Your task to perform on an android device: Search for Mexican restaurants on Maps Image 0: 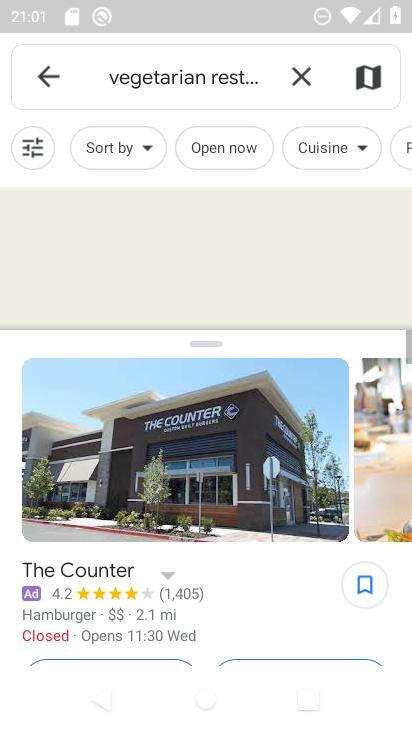
Step 0: press home button
Your task to perform on an android device: Search for Mexican restaurants on Maps Image 1: 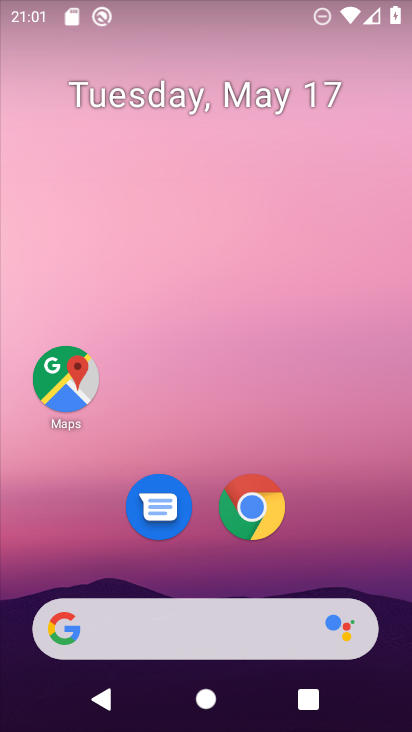
Step 1: click (67, 350)
Your task to perform on an android device: Search for Mexican restaurants on Maps Image 2: 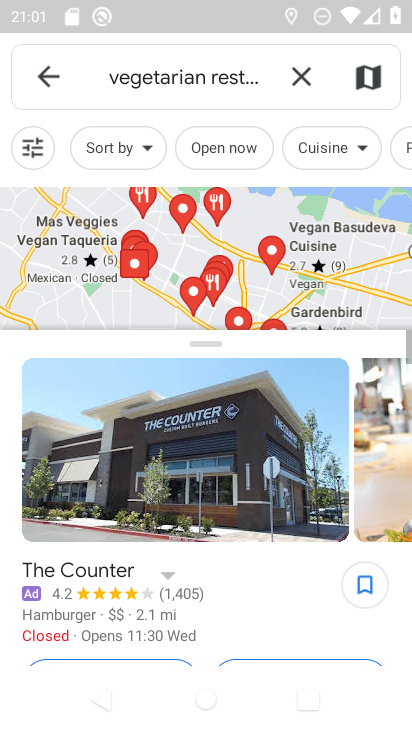
Step 2: click (298, 69)
Your task to perform on an android device: Search for Mexican restaurants on Maps Image 3: 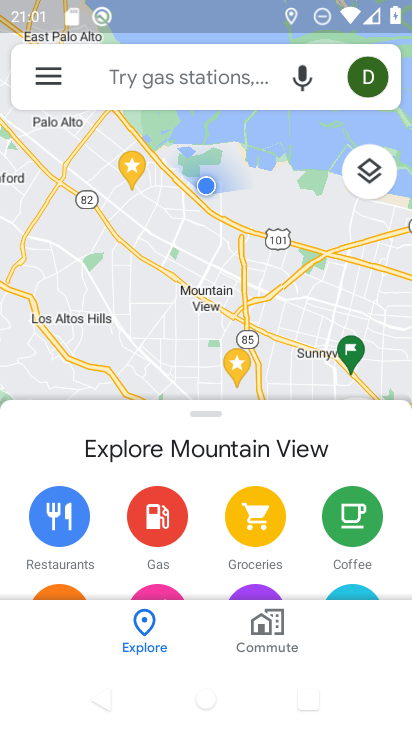
Step 3: click (130, 83)
Your task to perform on an android device: Search for Mexican restaurants on Maps Image 4: 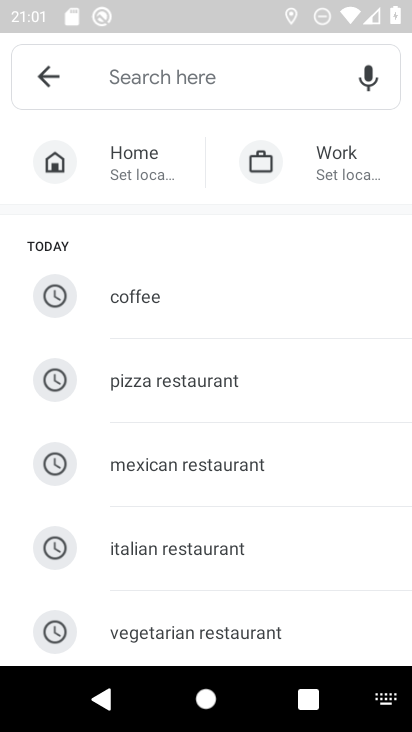
Step 4: type "mexican restaurant"
Your task to perform on an android device: Search for Mexican restaurants on Maps Image 5: 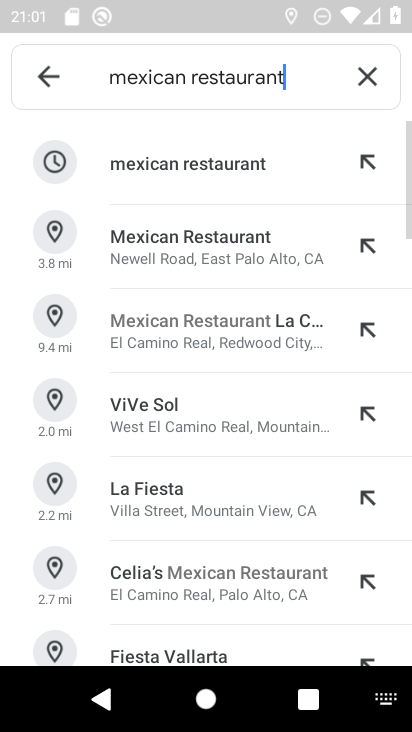
Step 5: click (196, 161)
Your task to perform on an android device: Search for Mexican restaurants on Maps Image 6: 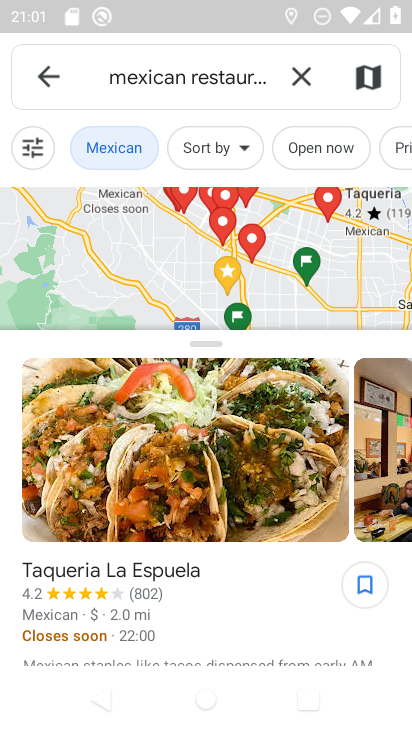
Step 6: task complete